Your task to perform on an android device: What's on my calendar tomorrow? Image 0: 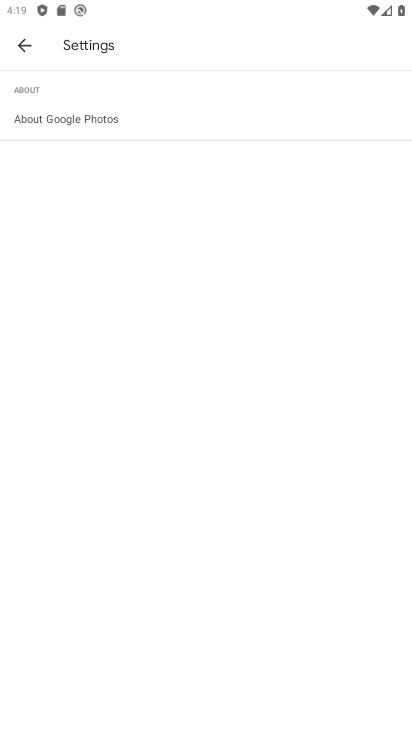
Step 0: press home button
Your task to perform on an android device: What's on my calendar tomorrow? Image 1: 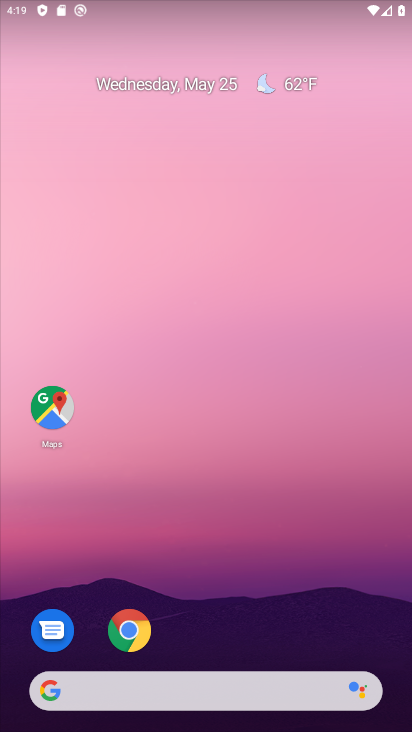
Step 1: drag from (221, 640) to (288, 70)
Your task to perform on an android device: What's on my calendar tomorrow? Image 2: 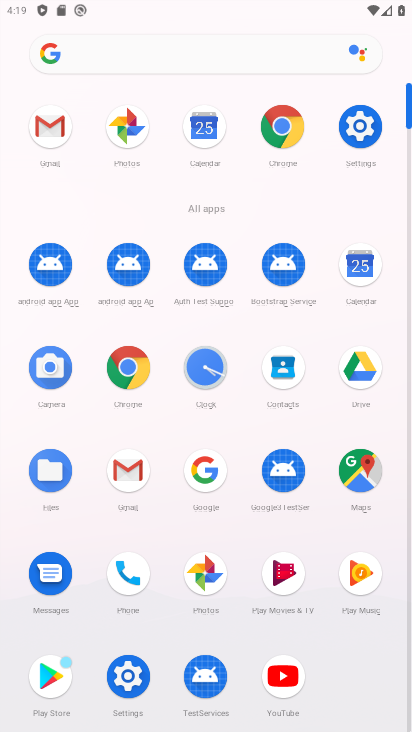
Step 2: click (358, 266)
Your task to perform on an android device: What's on my calendar tomorrow? Image 3: 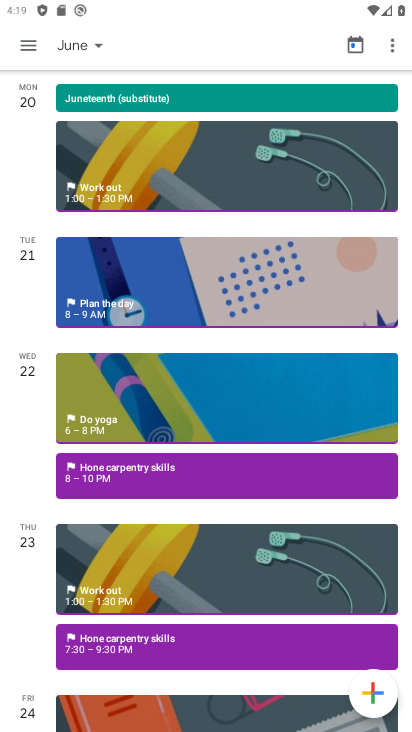
Step 3: click (79, 44)
Your task to perform on an android device: What's on my calendar tomorrow? Image 4: 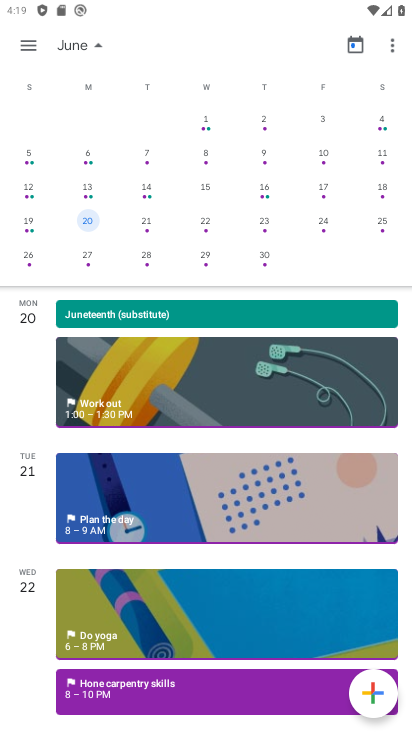
Step 4: drag from (47, 214) to (401, 186)
Your task to perform on an android device: What's on my calendar tomorrow? Image 5: 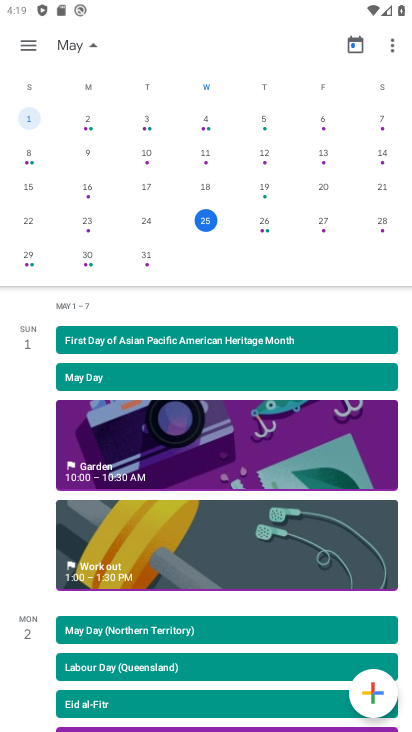
Step 5: click (209, 220)
Your task to perform on an android device: What's on my calendar tomorrow? Image 6: 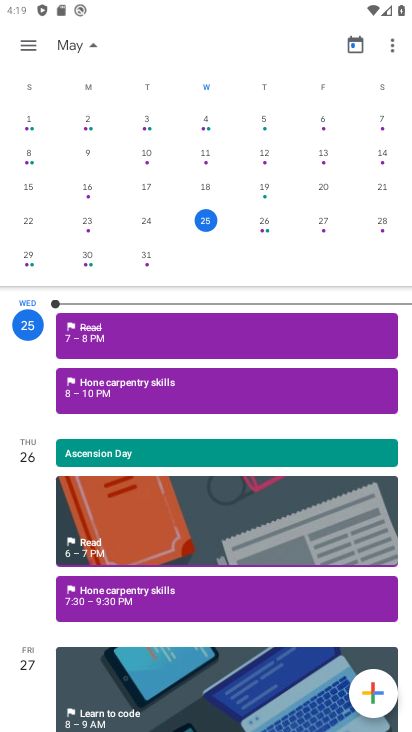
Step 6: click (141, 454)
Your task to perform on an android device: What's on my calendar tomorrow? Image 7: 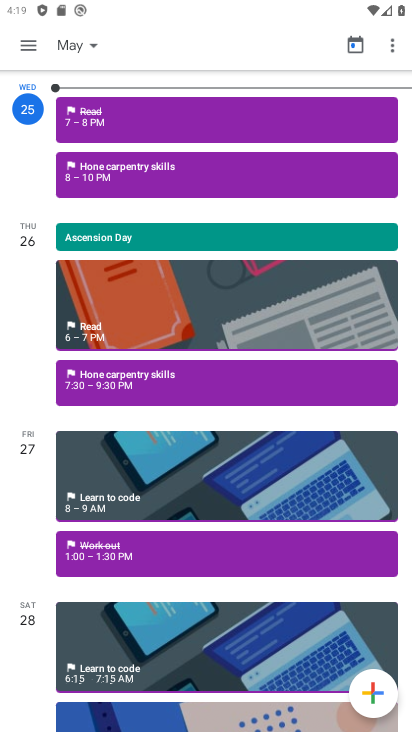
Step 7: task complete